Your task to perform on an android device: Play the last video I watched on Youtube Image 0: 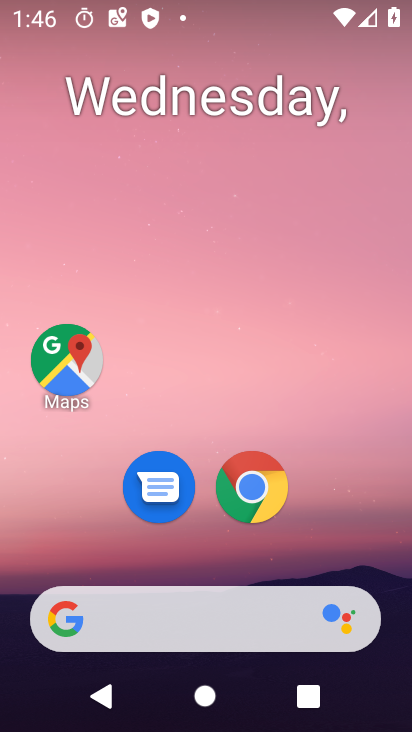
Step 0: drag from (220, 581) to (263, 19)
Your task to perform on an android device: Play the last video I watched on Youtube Image 1: 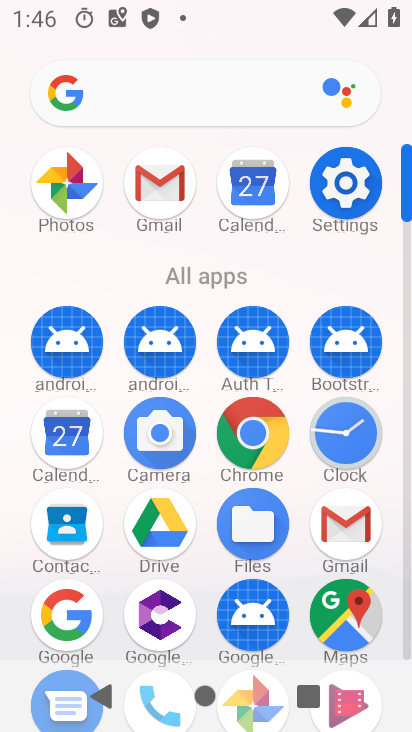
Step 1: drag from (146, 613) to (228, 97)
Your task to perform on an android device: Play the last video I watched on Youtube Image 2: 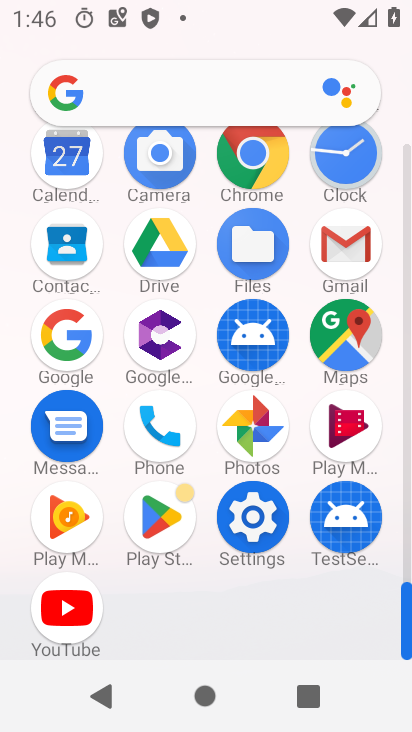
Step 2: click (64, 609)
Your task to perform on an android device: Play the last video I watched on Youtube Image 3: 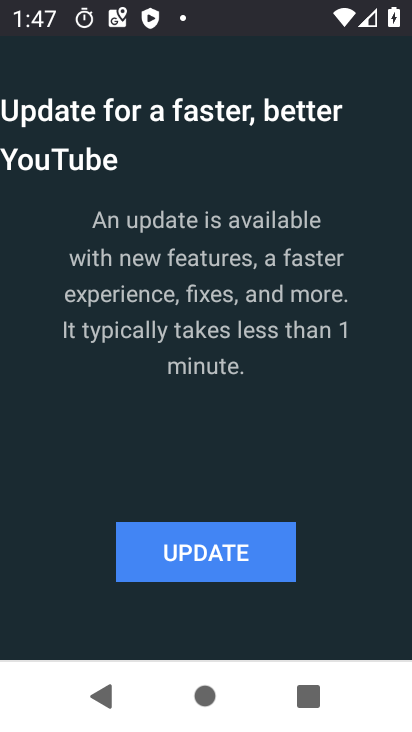
Step 3: press home button
Your task to perform on an android device: Play the last video I watched on Youtube Image 4: 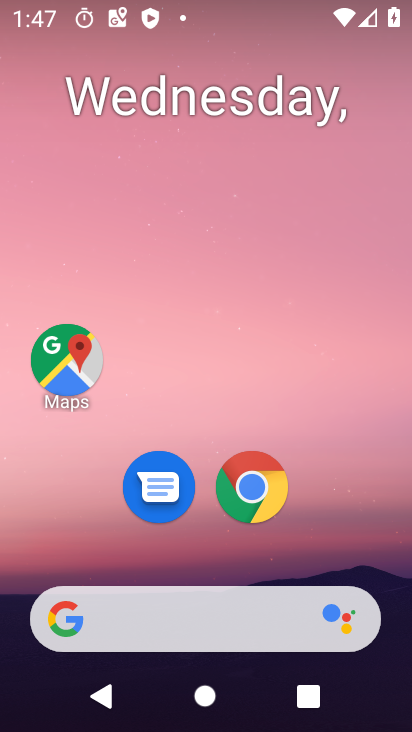
Step 4: drag from (197, 533) to (240, 4)
Your task to perform on an android device: Play the last video I watched on Youtube Image 5: 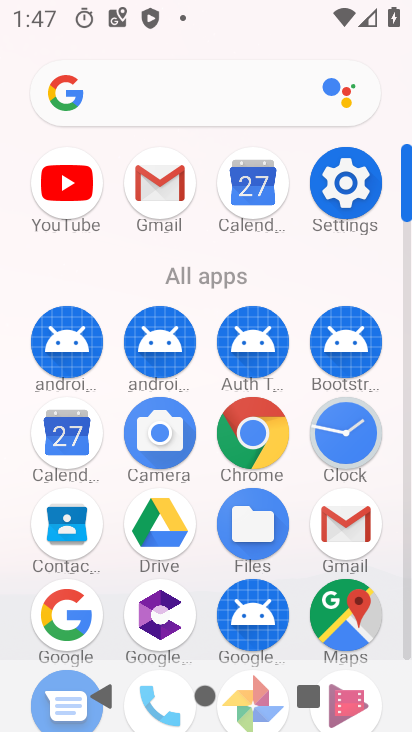
Step 5: drag from (230, 582) to (301, 15)
Your task to perform on an android device: Play the last video I watched on Youtube Image 6: 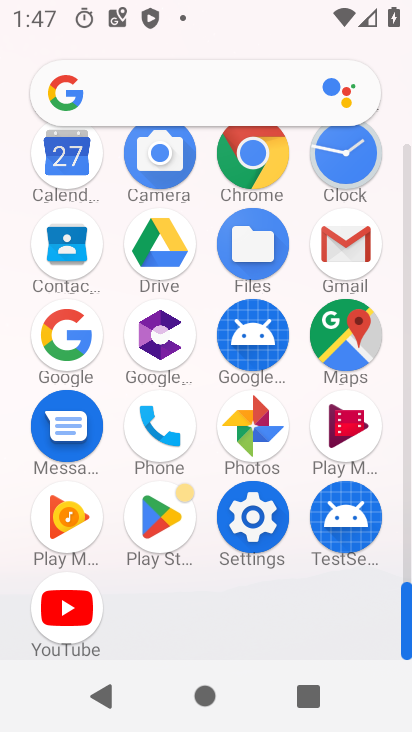
Step 6: click (37, 614)
Your task to perform on an android device: Play the last video I watched on Youtube Image 7: 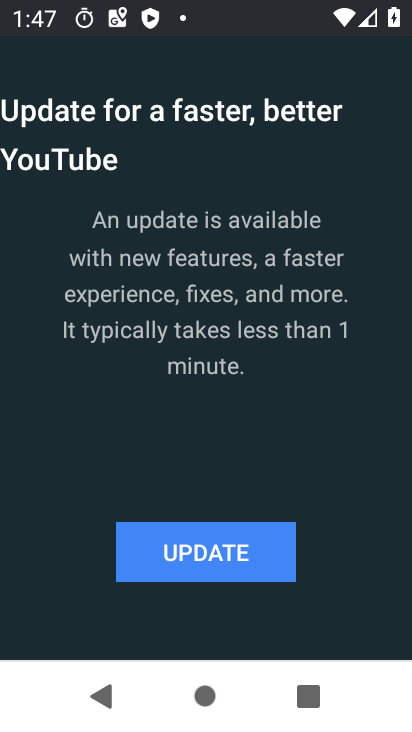
Step 7: click (169, 578)
Your task to perform on an android device: Play the last video I watched on Youtube Image 8: 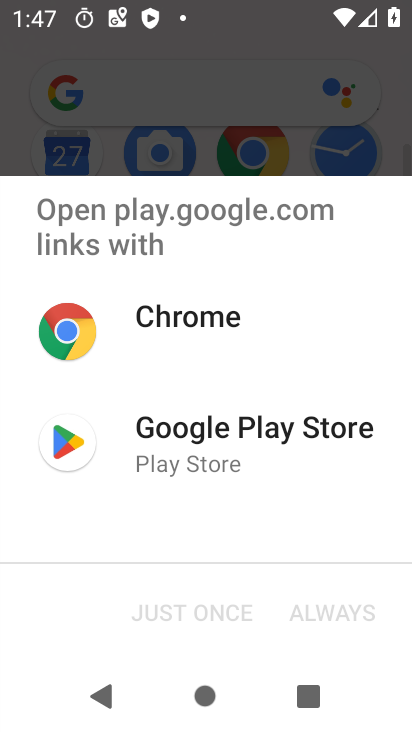
Step 8: click (184, 432)
Your task to perform on an android device: Play the last video I watched on Youtube Image 9: 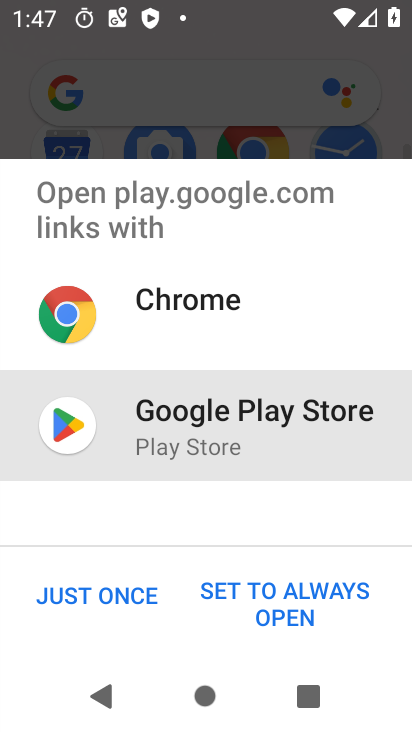
Step 9: click (221, 594)
Your task to perform on an android device: Play the last video I watched on Youtube Image 10: 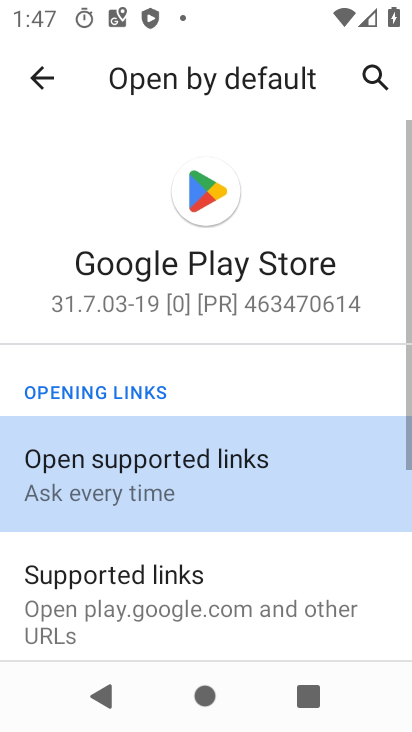
Step 10: click (34, 68)
Your task to perform on an android device: Play the last video I watched on Youtube Image 11: 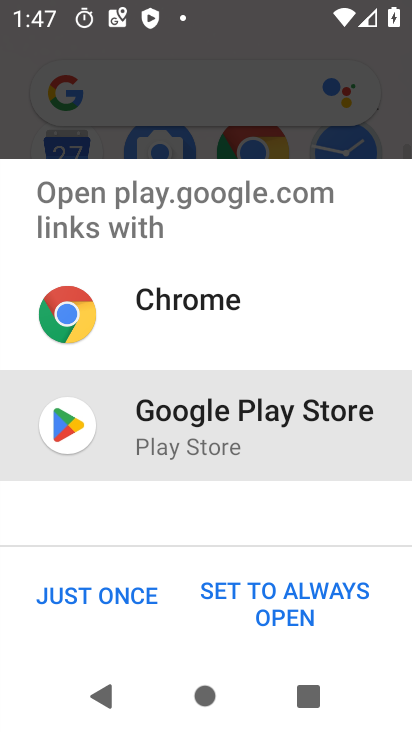
Step 11: click (91, 610)
Your task to perform on an android device: Play the last video I watched on Youtube Image 12: 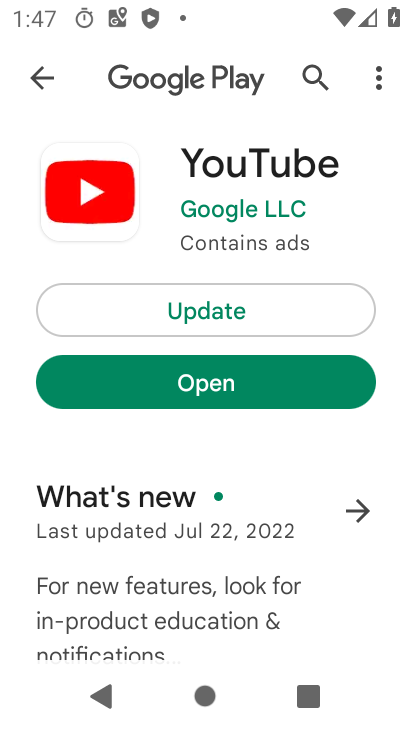
Step 12: click (217, 312)
Your task to perform on an android device: Play the last video I watched on Youtube Image 13: 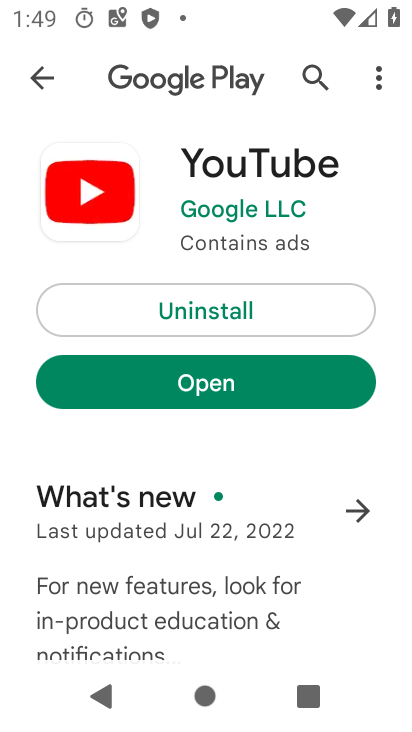
Step 13: click (201, 380)
Your task to perform on an android device: Play the last video I watched on Youtube Image 14: 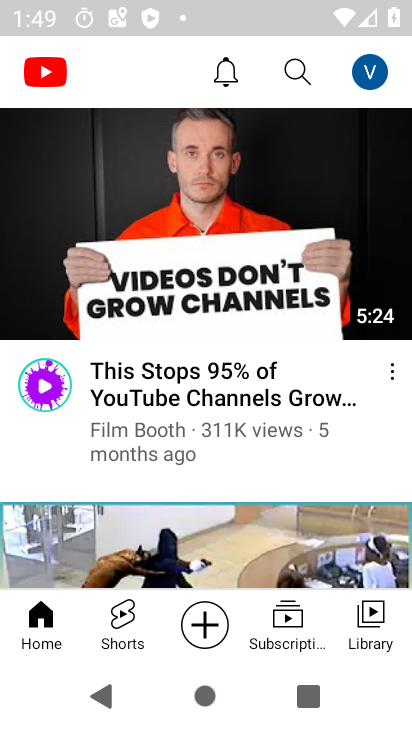
Step 14: click (367, 626)
Your task to perform on an android device: Play the last video I watched on Youtube Image 15: 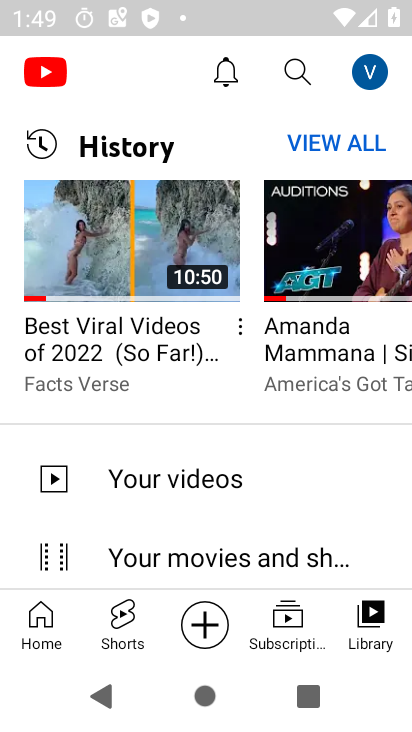
Step 15: click (141, 231)
Your task to perform on an android device: Play the last video I watched on Youtube Image 16: 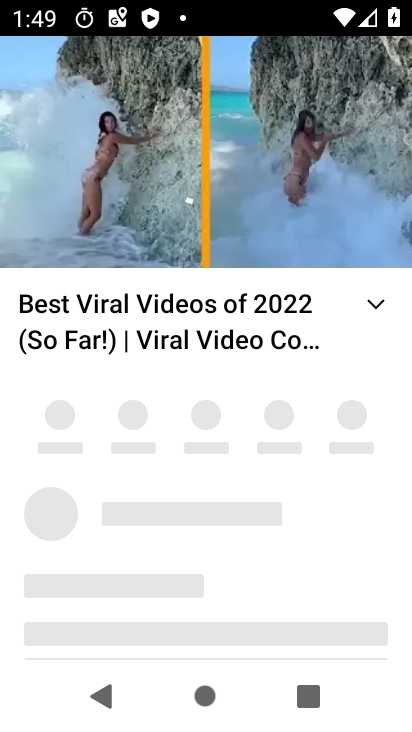
Step 16: click (197, 140)
Your task to perform on an android device: Play the last video I watched on Youtube Image 17: 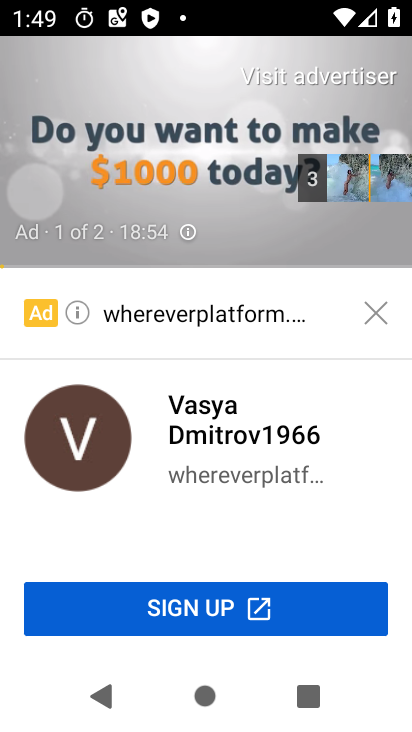
Step 17: click (208, 152)
Your task to perform on an android device: Play the last video I watched on Youtube Image 18: 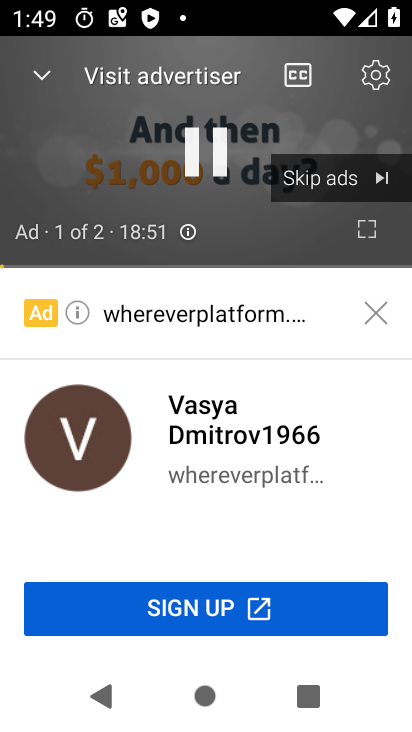
Step 18: click (208, 152)
Your task to perform on an android device: Play the last video I watched on Youtube Image 19: 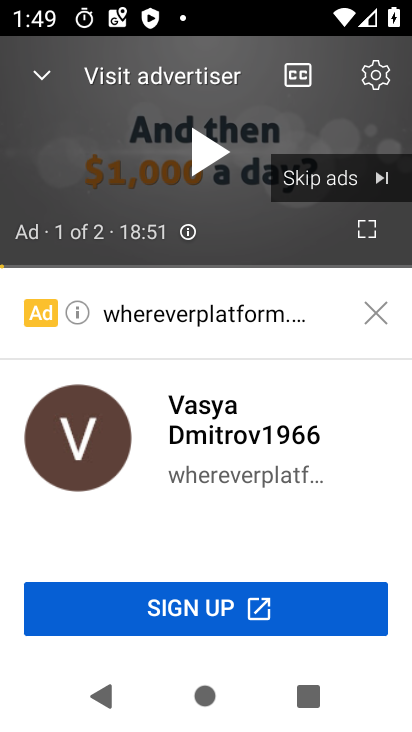
Step 19: task complete